Your task to perform on an android device: Go to Google Image 0: 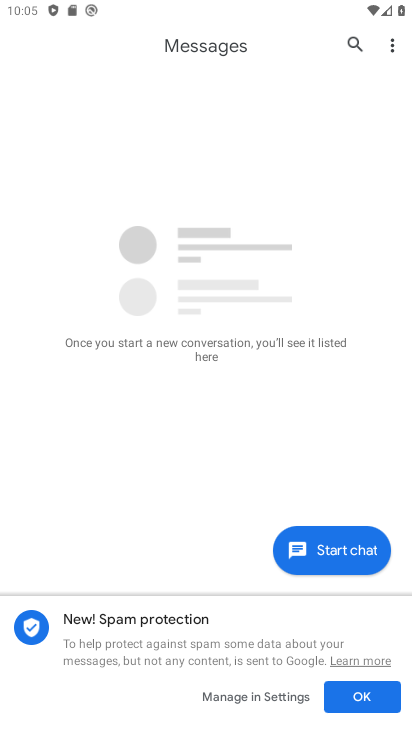
Step 0: press home button
Your task to perform on an android device: Go to Google Image 1: 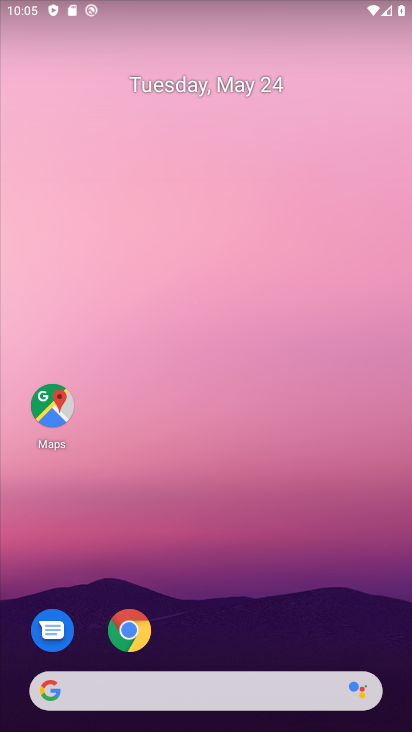
Step 1: drag from (220, 645) to (281, 34)
Your task to perform on an android device: Go to Google Image 2: 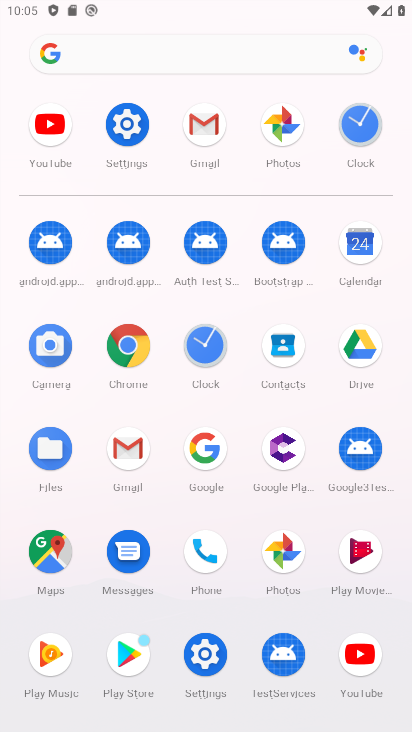
Step 2: click (202, 443)
Your task to perform on an android device: Go to Google Image 3: 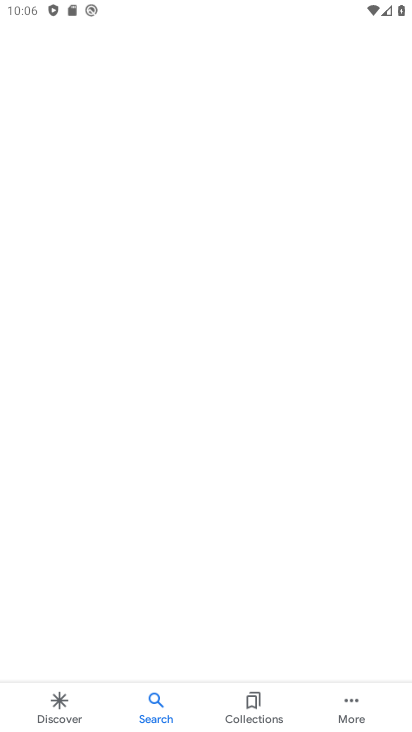
Step 3: click (64, 702)
Your task to perform on an android device: Go to Google Image 4: 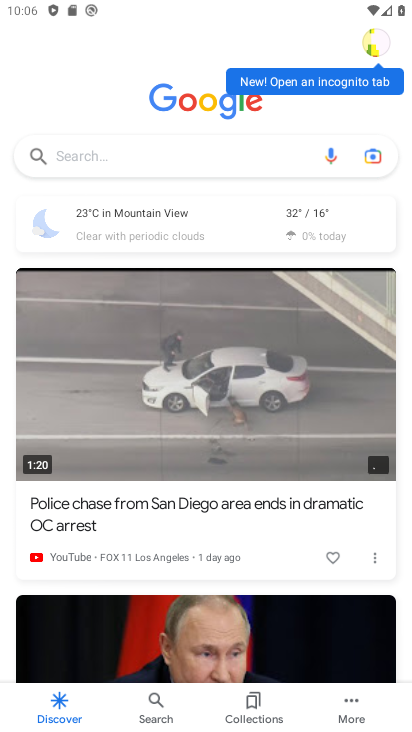
Step 4: task complete